Your task to perform on an android device: Go to notification settings Image 0: 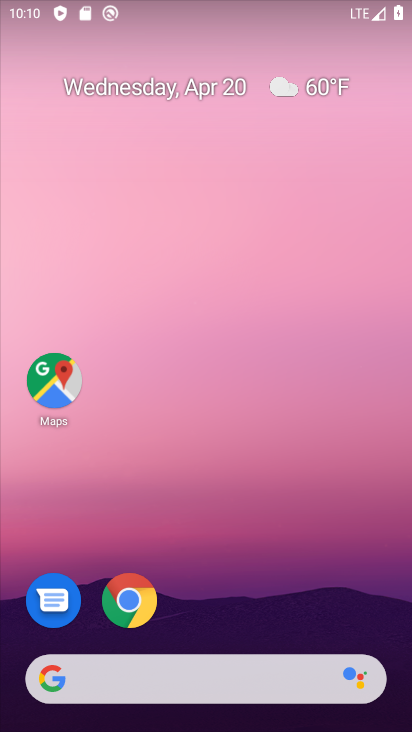
Step 0: drag from (213, 615) to (173, 165)
Your task to perform on an android device: Go to notification settings Image 1: 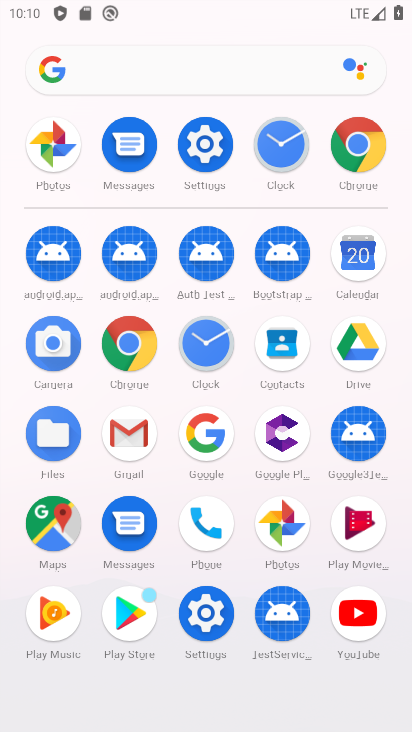
Step 1: click (193, 132)
Your task to perform on an android device: Go to notification settings Image 2: 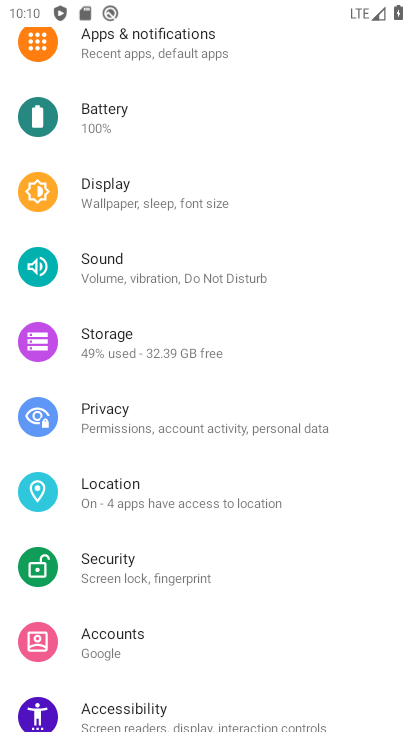
Step 2: click (112, 65)
Your task to perform on an android device: Go to notification settings Image 3: 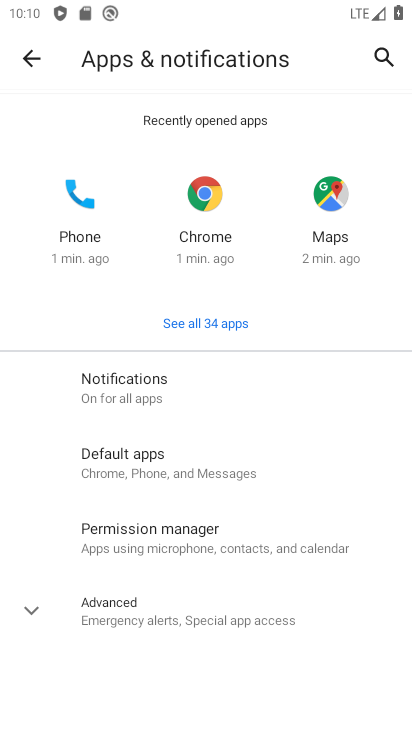
Step 3: task complete